Your task to perform on an android device: Open Wikipedia Image 0: 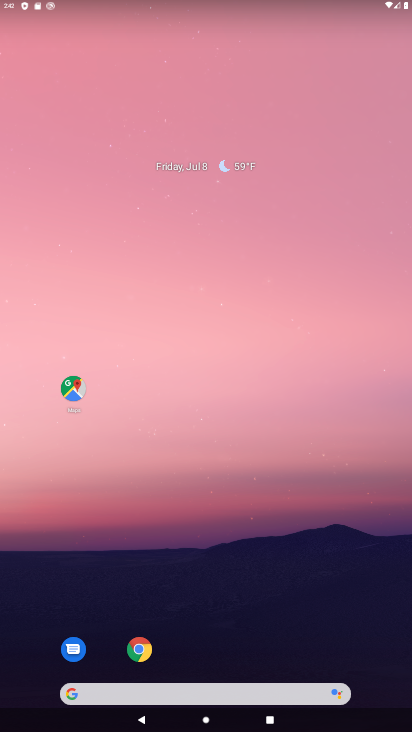
Step 0: drag from (334, 576) to (200, 88)
Your task to perform on an android device: Open Wikipedia Image 1: 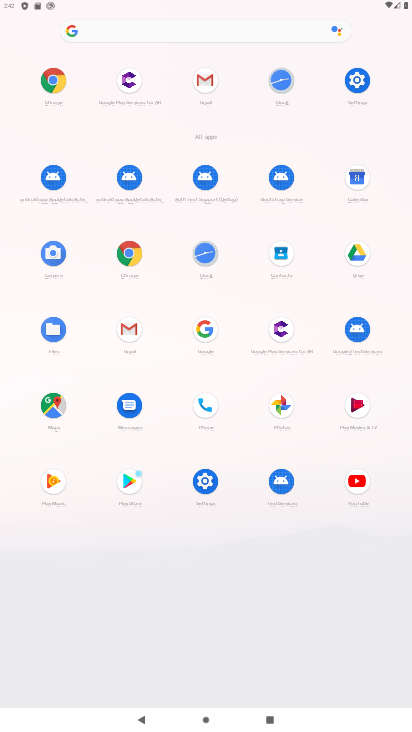
Step 1: click (53, 85)
Your task to perform on an android device: Open Wikipedia Image 2: 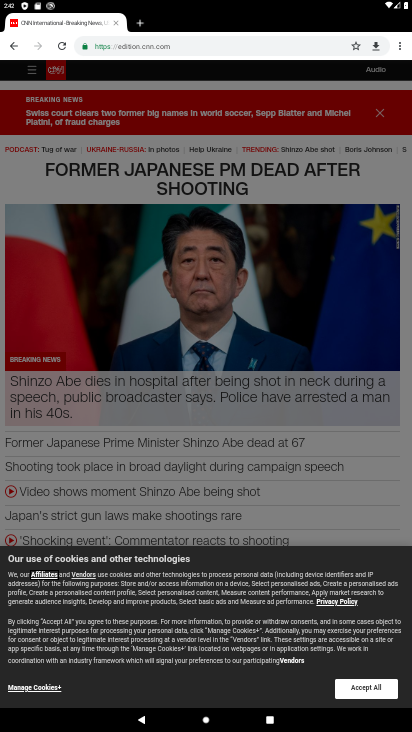
Step 2: click (120, 42)
Your task to perform on an android device: Open Wikipedia Image 3: 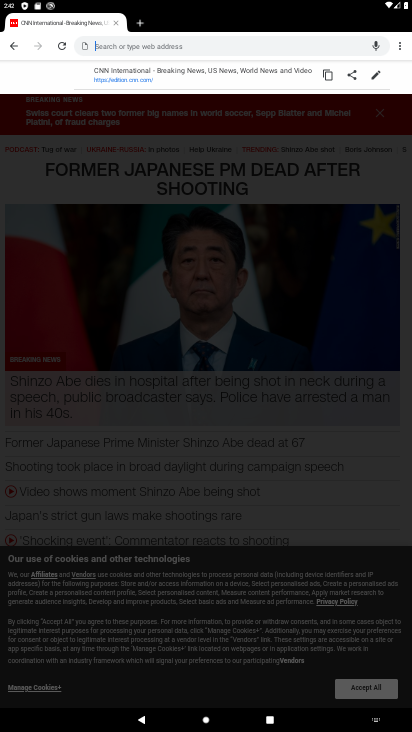
Step 3: type "wikipedia"
Your task to perform on an android device: Open Wikipedia Image 4: 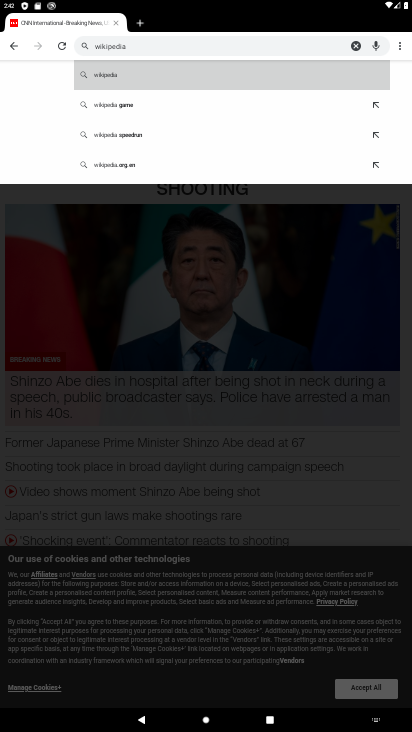
Step 4: click (122, 70)
Your task to perform on an android device: Open Wikipedia Image 5: 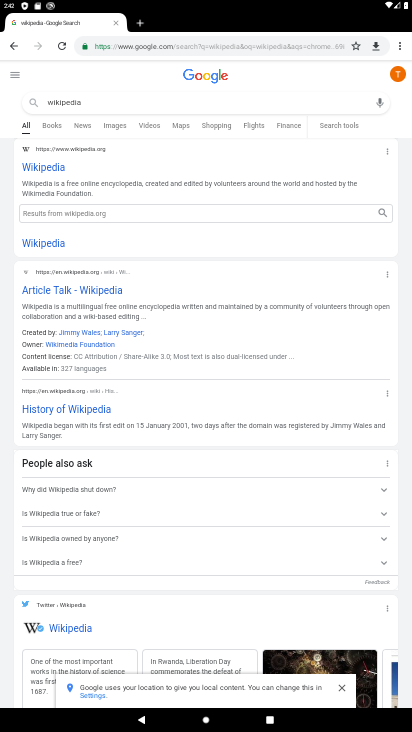
Step 5: click (34, 167)
Your task to perform on an android device: Open Wikipedia Image 6: 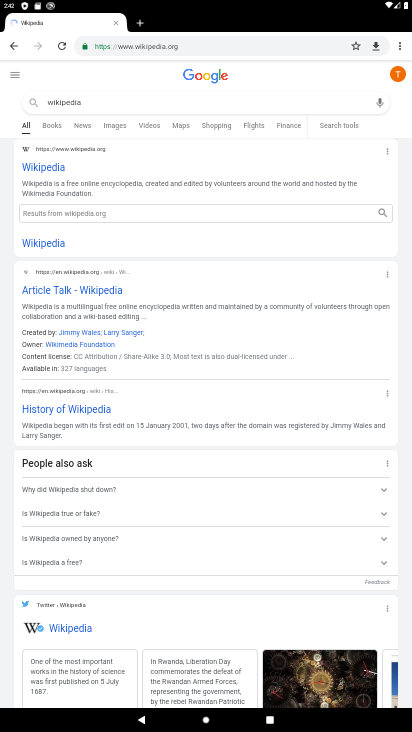
Step 6: click (39, 163)
Your task to perform on an android device: Open Wikipedia Image 7: 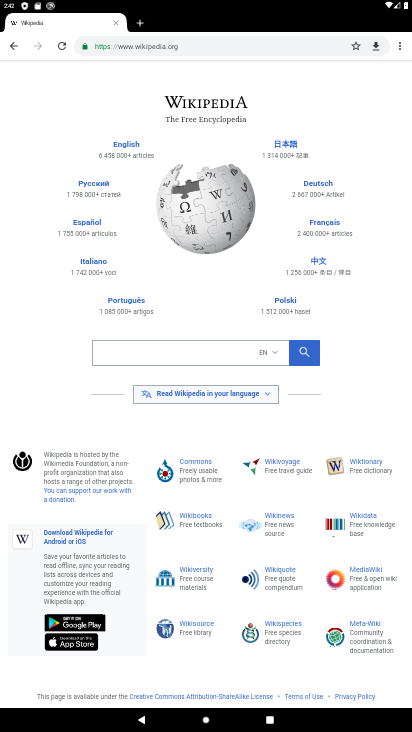
Step 7: task complete